Your task to perform on an android device: check out phone information Image 0: 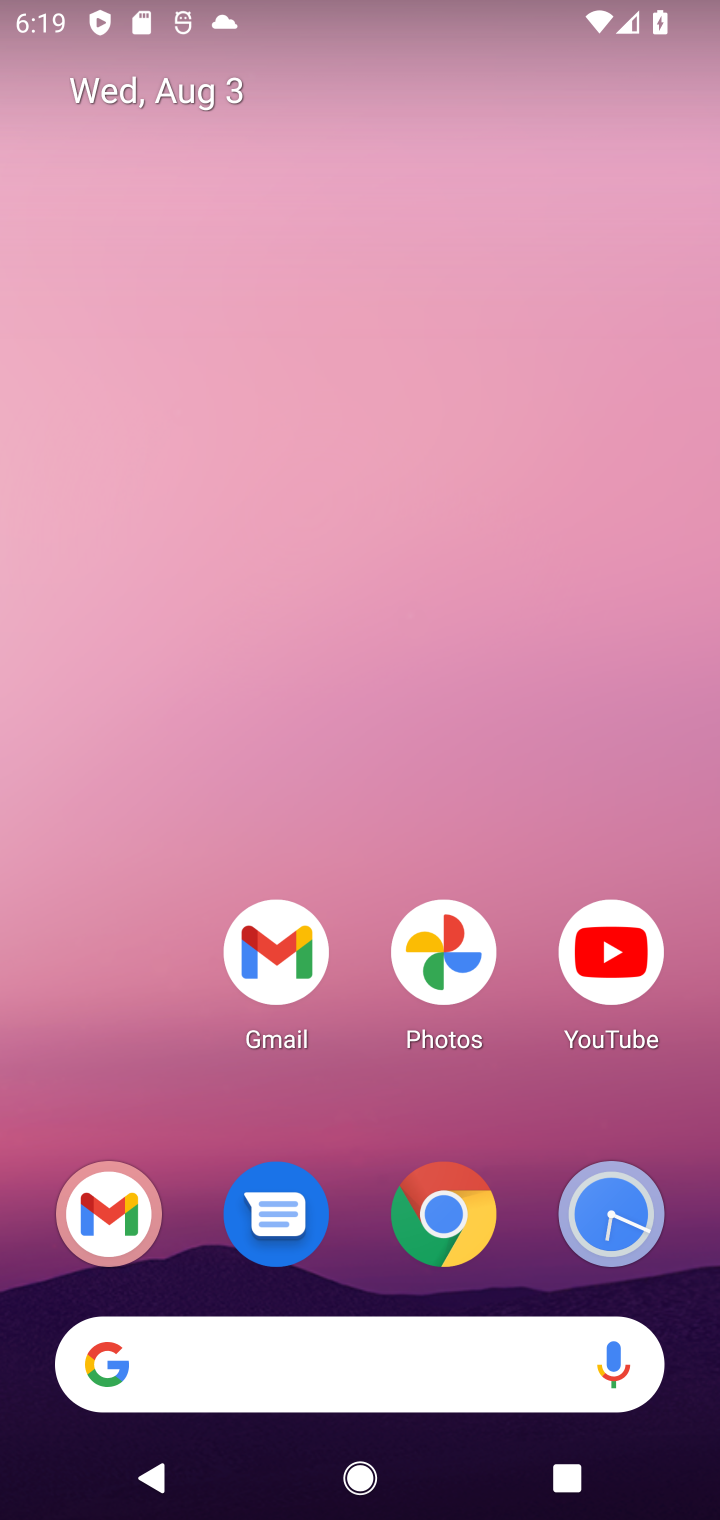
Step 0: drag from (104, 1154) to (235, 112)
Your task to perform on an android device: check out phone information Image 1: 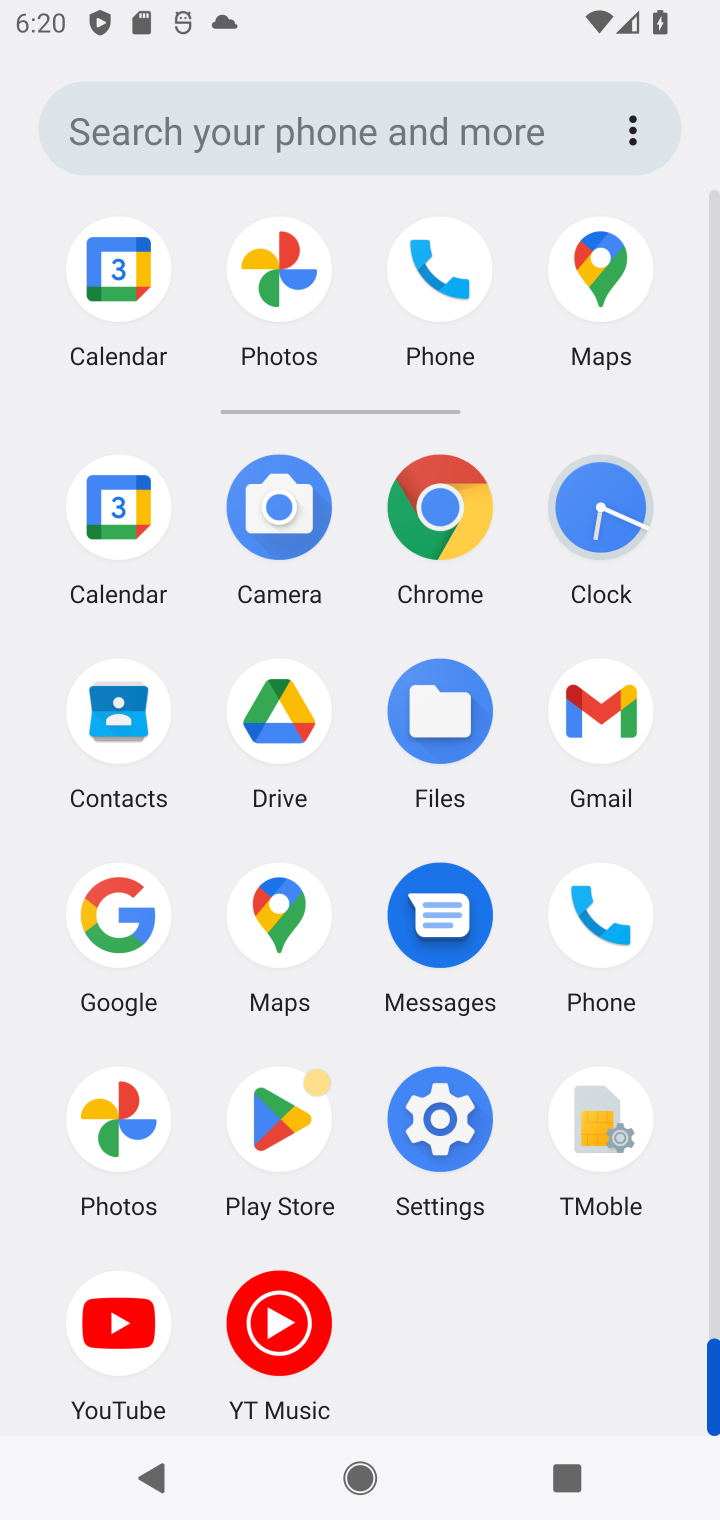
Step 1: click (436, 1121)
Your task to perform on an android device: check out phone information Image 2: 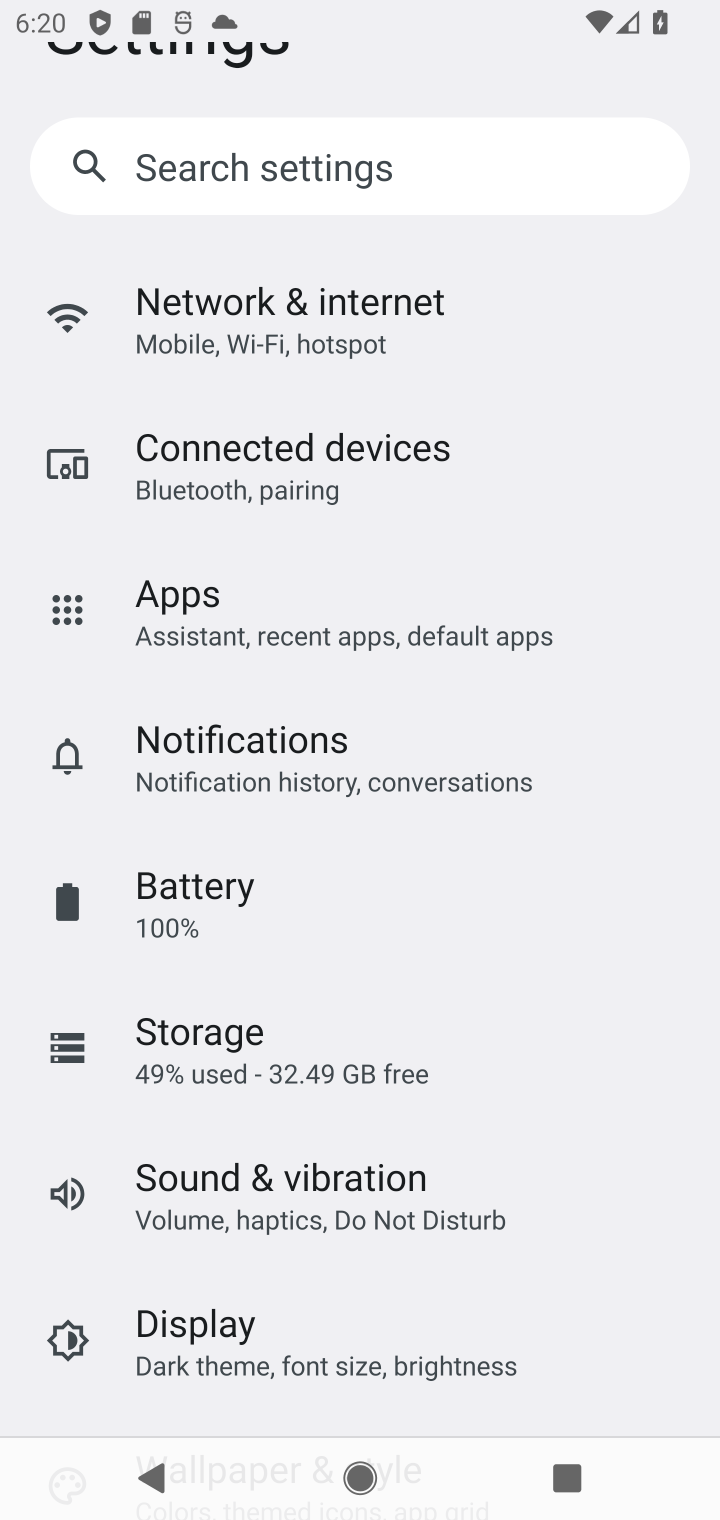
Step 2: drag from (349, 1299) to (487, 130)
Your task to perform on an android device: check out phone information Image 3: 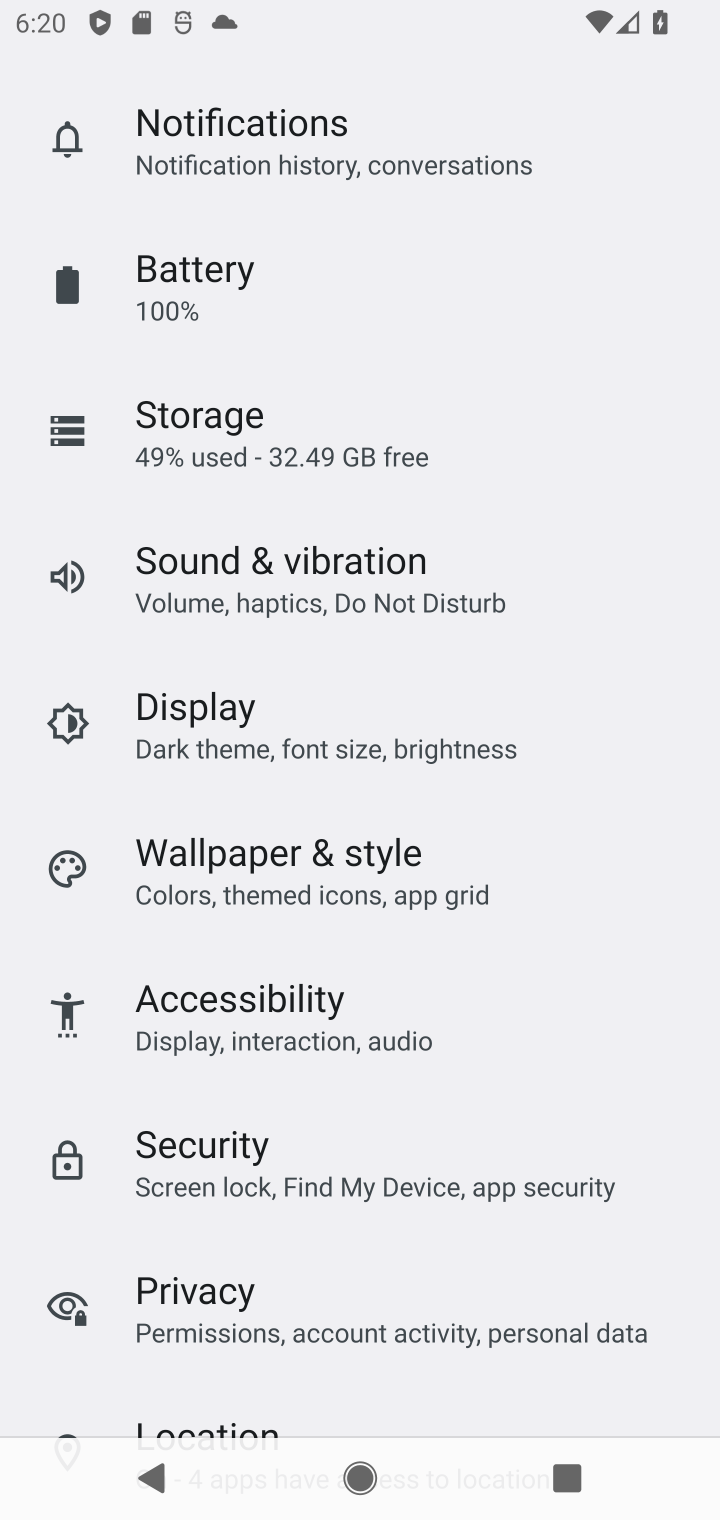
Step 3: drag from (331, 1302) to (513, 154)
Your task to perform on an android device: check out phone information Image 4: 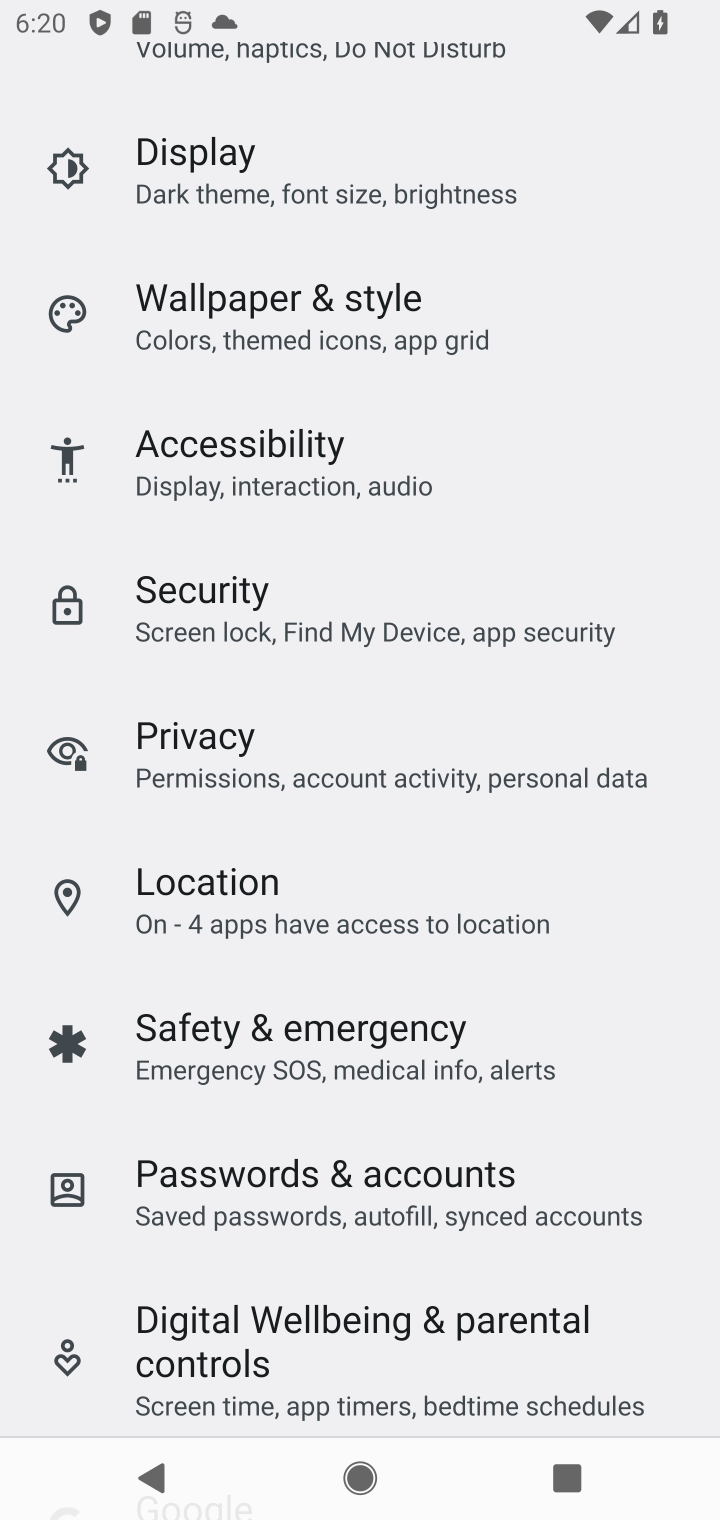
Step 4: drag from (335, 1052) to (445, 210)
Your task to perform on an android device: check out phone information Image 5: 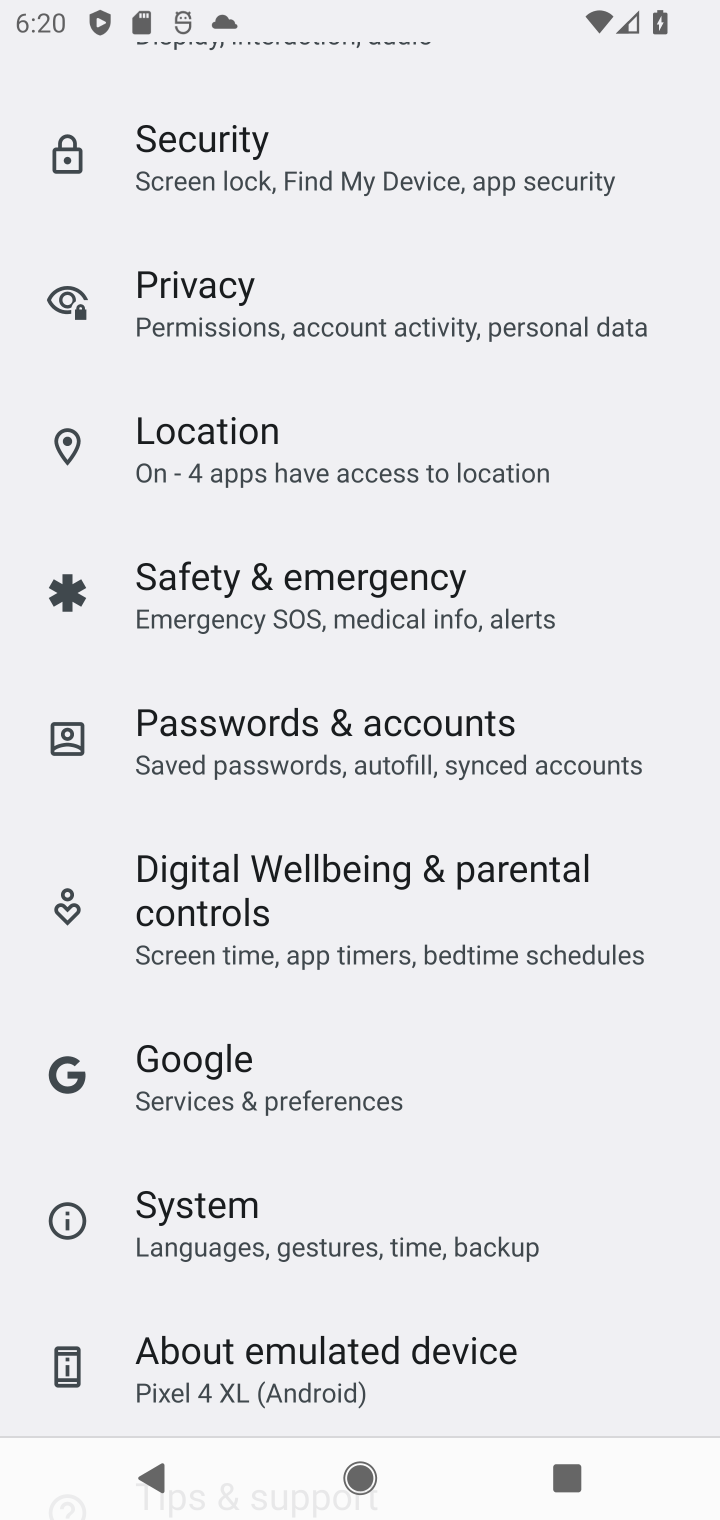
Step 5: drag from (173, 1338) to (306, 322)
Your task to perform on an android device: check out phone information Image 6: 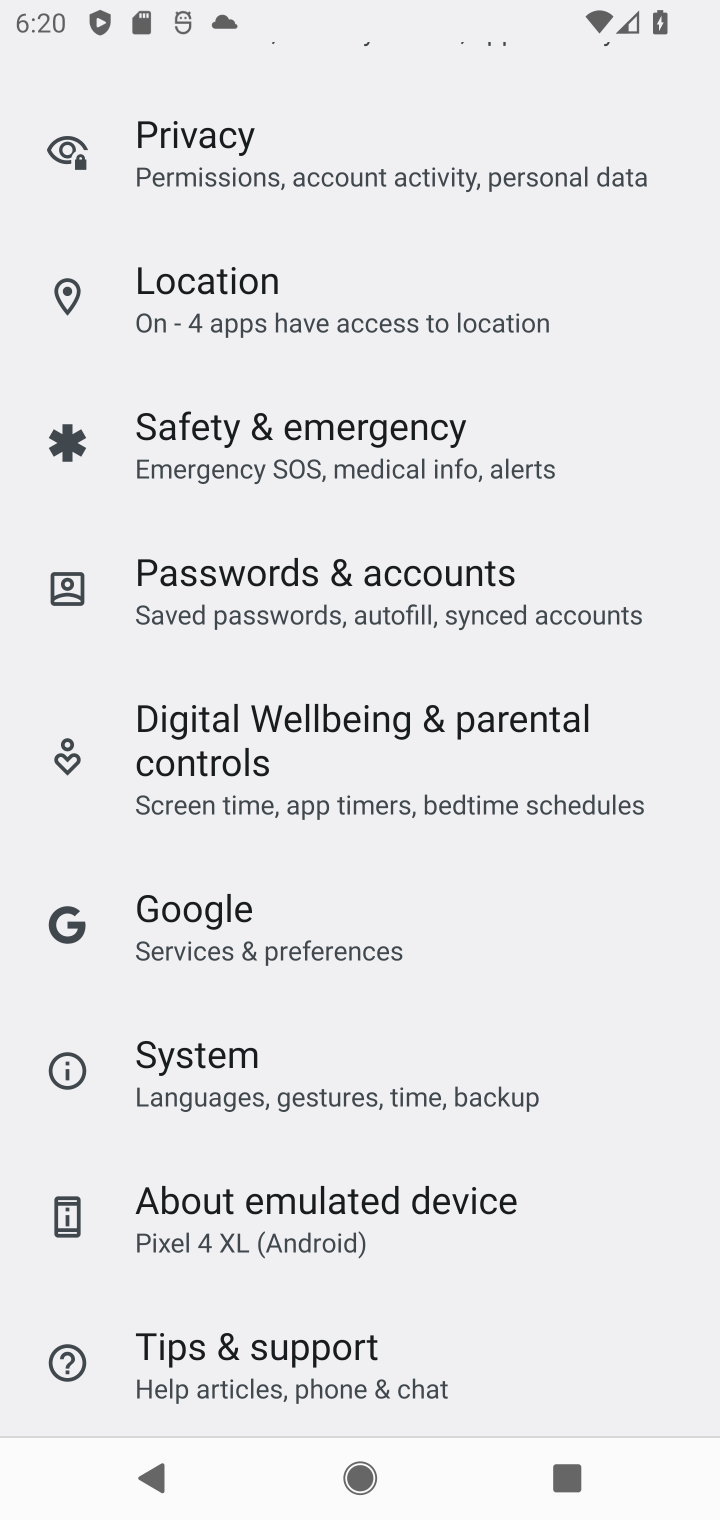
Step 6: drag from (292, 1202) to (397, 337)
Your task to perform on an android device: check out phone information Image 7: 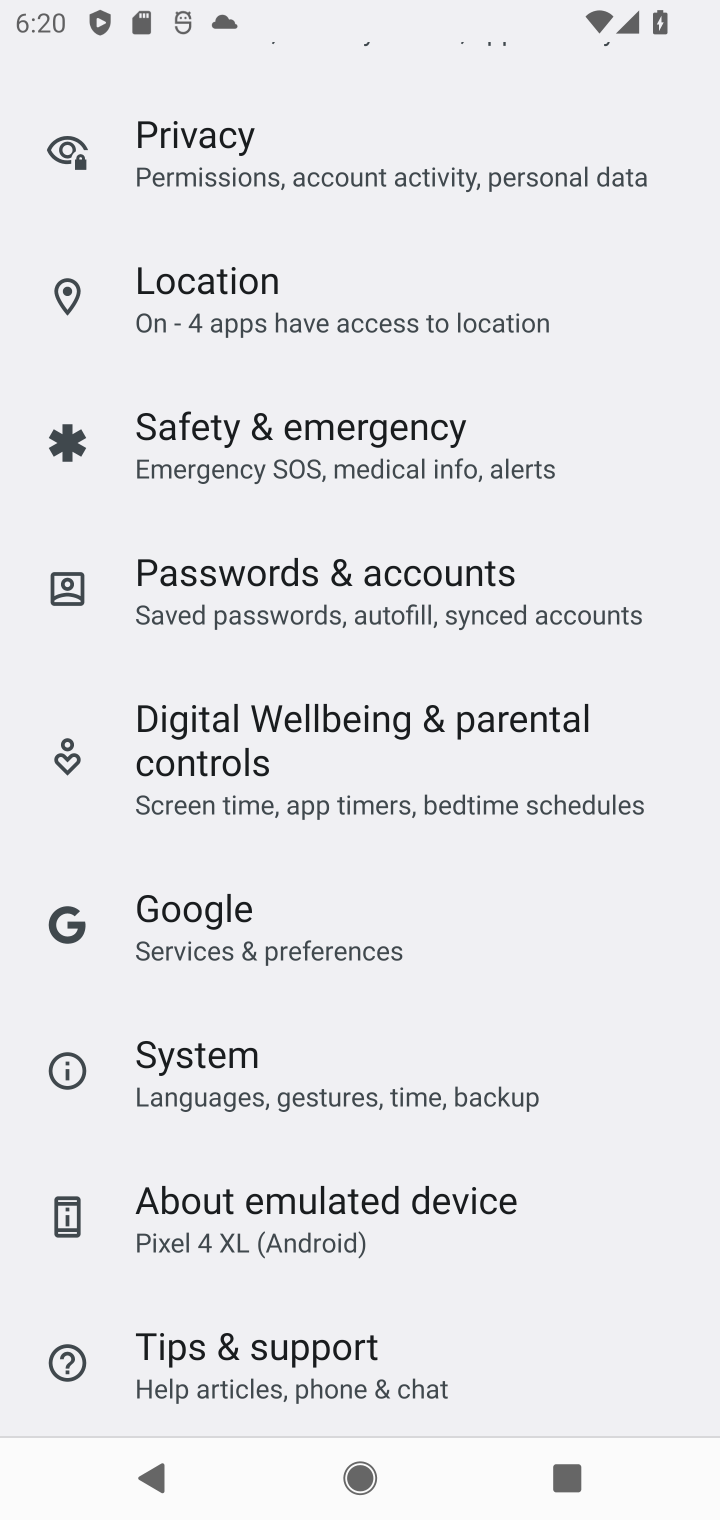
Step 7: click (218, 1221)
Your task to perform on an android device: check out phone information Image 8: 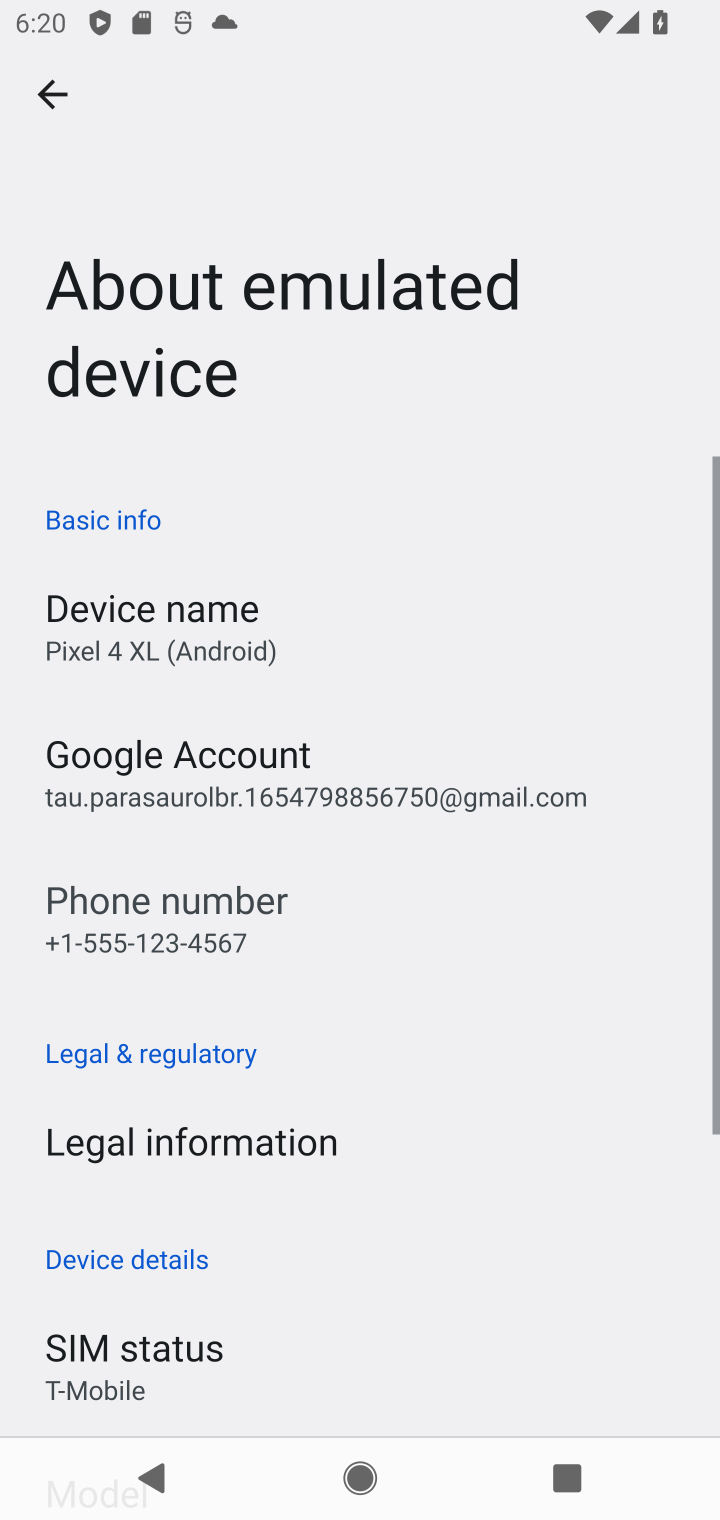
Step 8: task complete